Your task to perform on an android device: What's the news about the US stock market? Image 0: 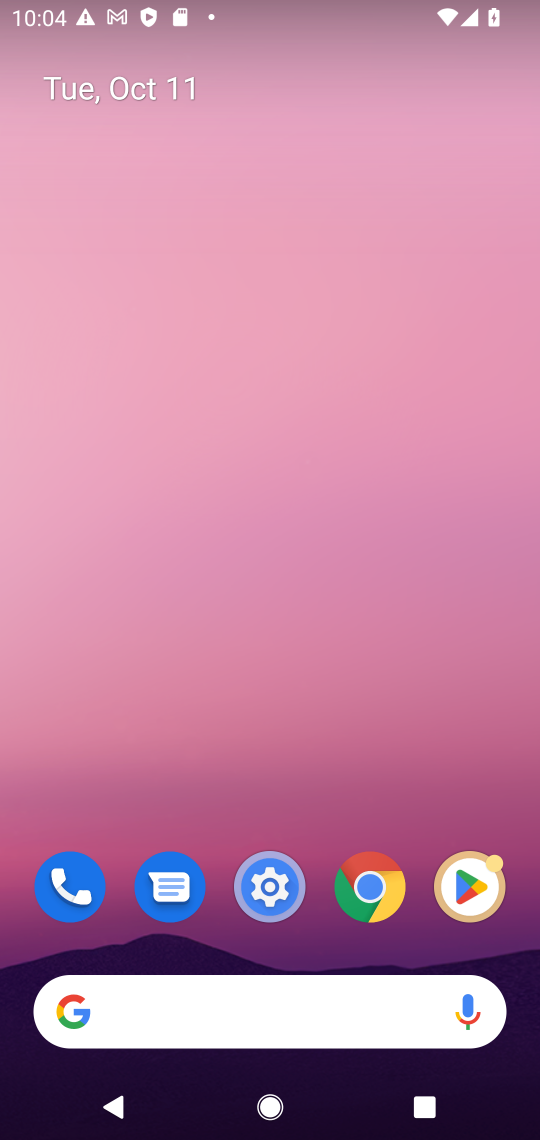
Step 0: press home button
Your task to perform on an android device: What's the news about the US stock market? Image 1: 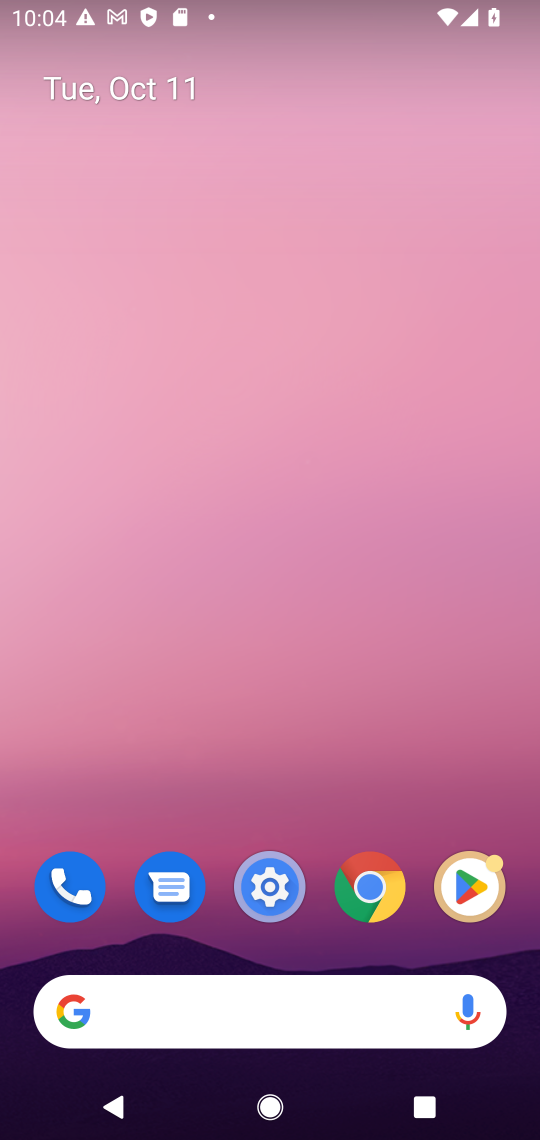
Step 1: click (252, 1016)
Your task to perform on an android device: What's the news about the US stock market? Image 2: 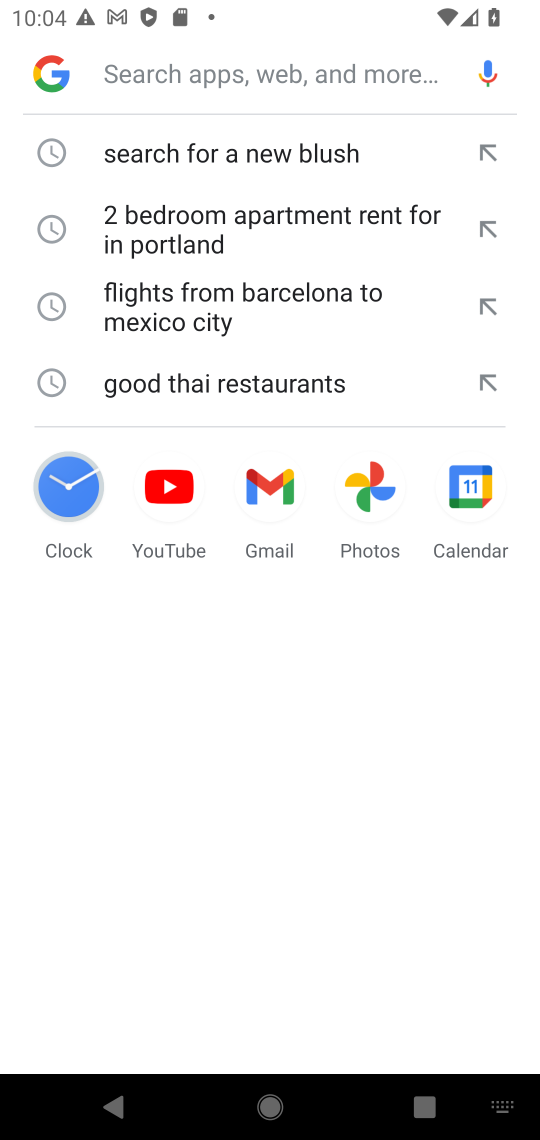
Step 2: type "What's the news about the US stock market"
Your task to perform on an android device: What's the news about the US stock market? Image 3: 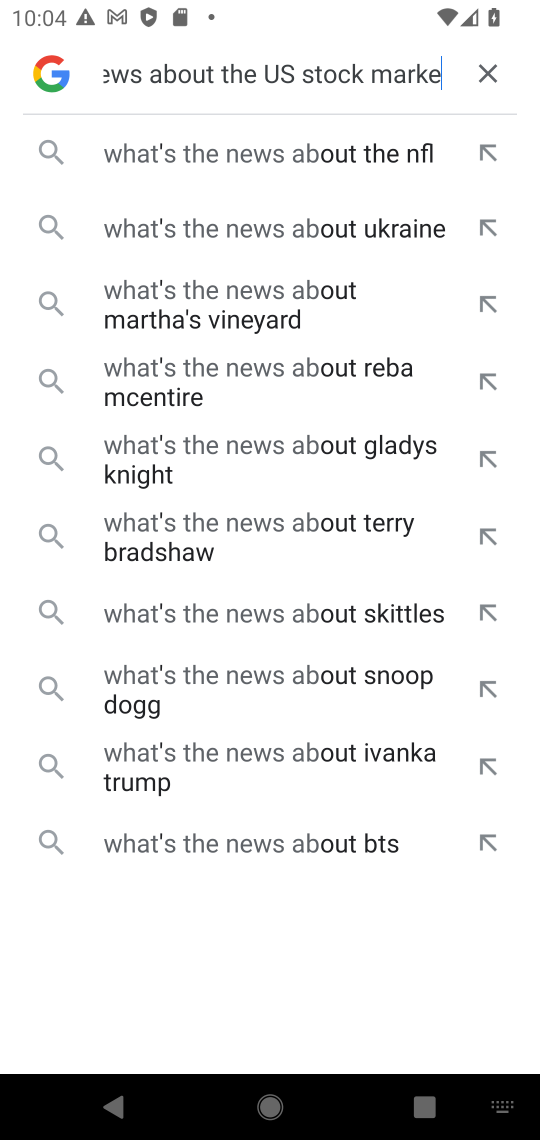
Step 3: press enter
Your task to perform on an android device: What's the news about the US stock market? Image 4: 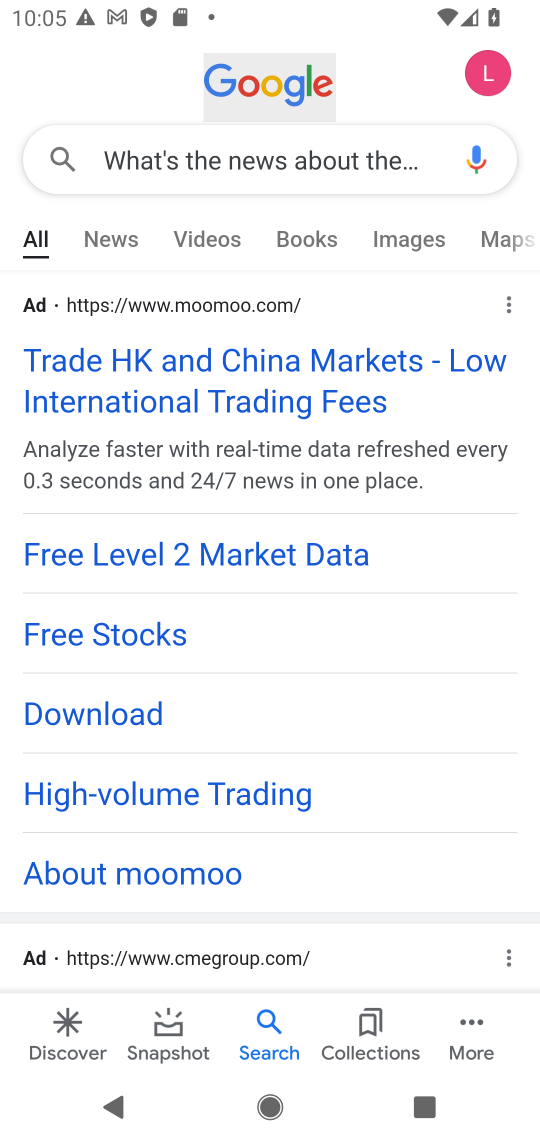
Step 4: drag from (454, 809) to (460, 477)
Your task to perform on an android device: What's the news about the US stock market? Image 5: 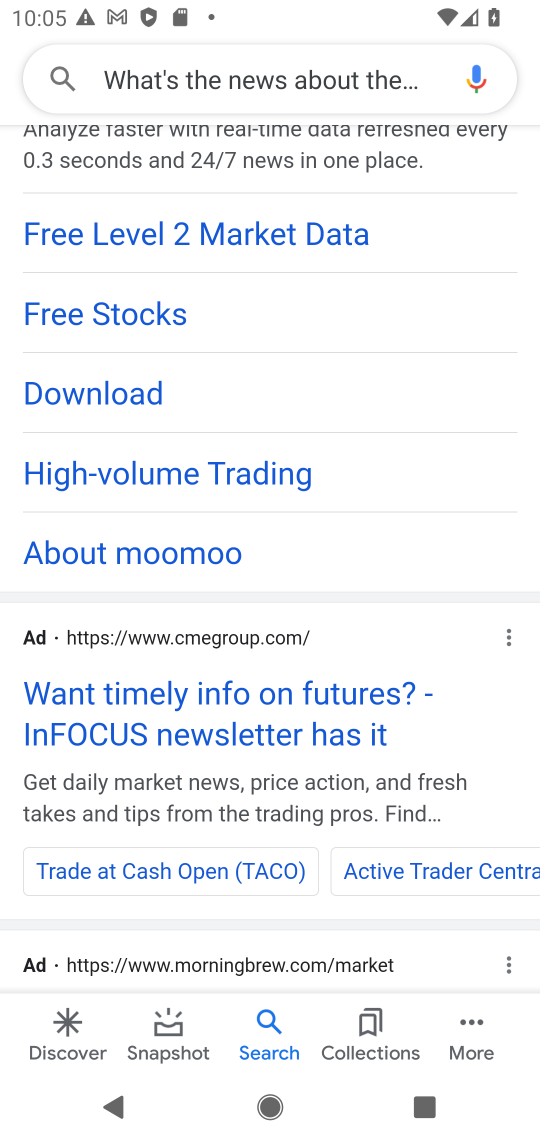
Step 5: drag from (397, 820) to (400, 498)
Your task to perform on an android device: What's the news about the US stock market? Image 6: 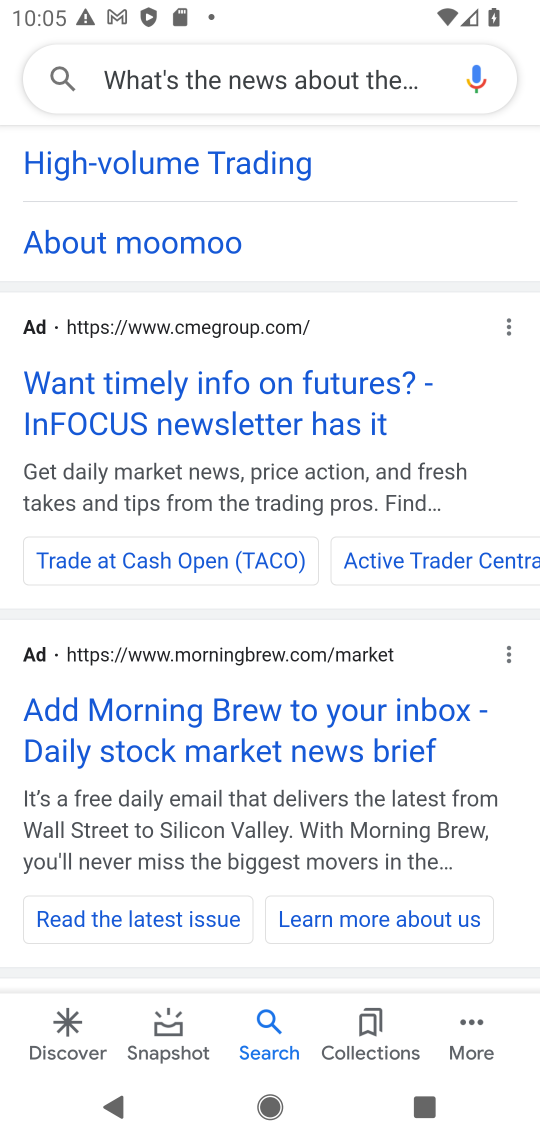
Step 6: drag from (264, 791) to (332, 332)
Your task to perform on an android device: What's the news about the US stock market? Image 7: 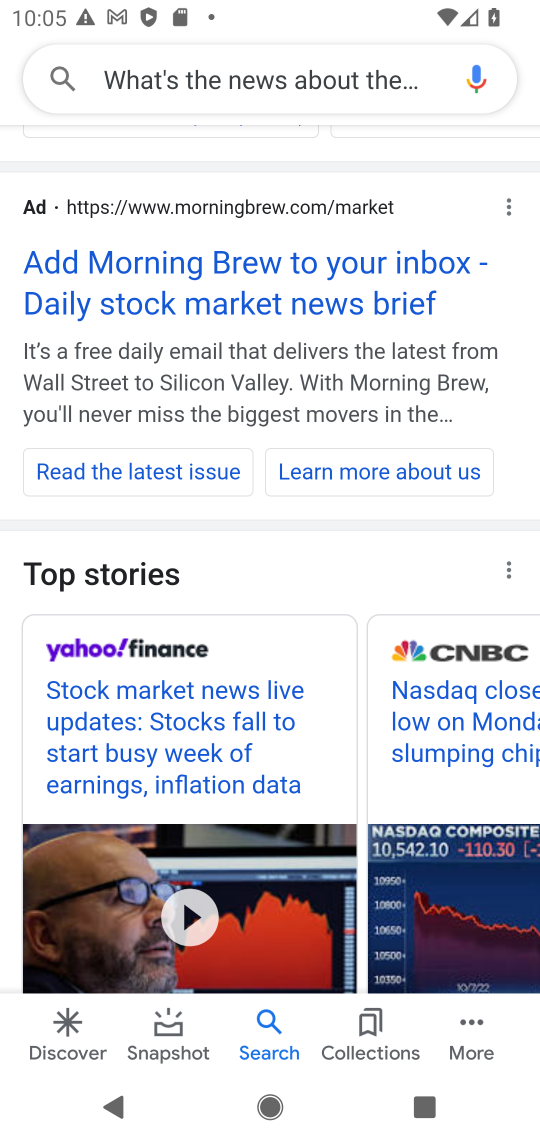
Step 7: drag from (304, 840) to (326, 302)
Your task to perform on an android device: What's the news about the US stock market? Image 8: 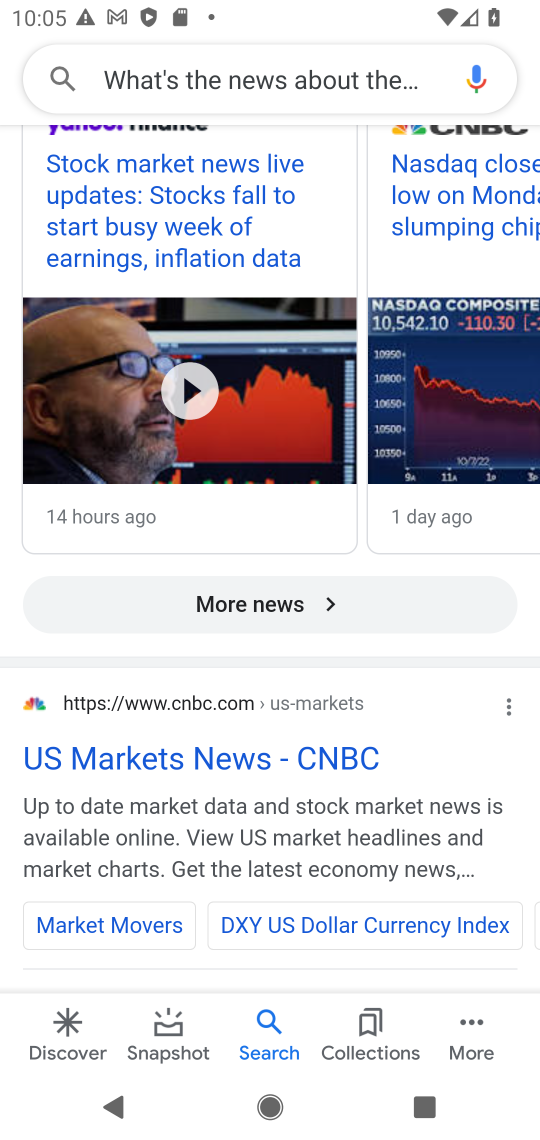
Step 8: click (203, 765)
Your task to perform on an android device: What's the news about the US stock market? Image 9: 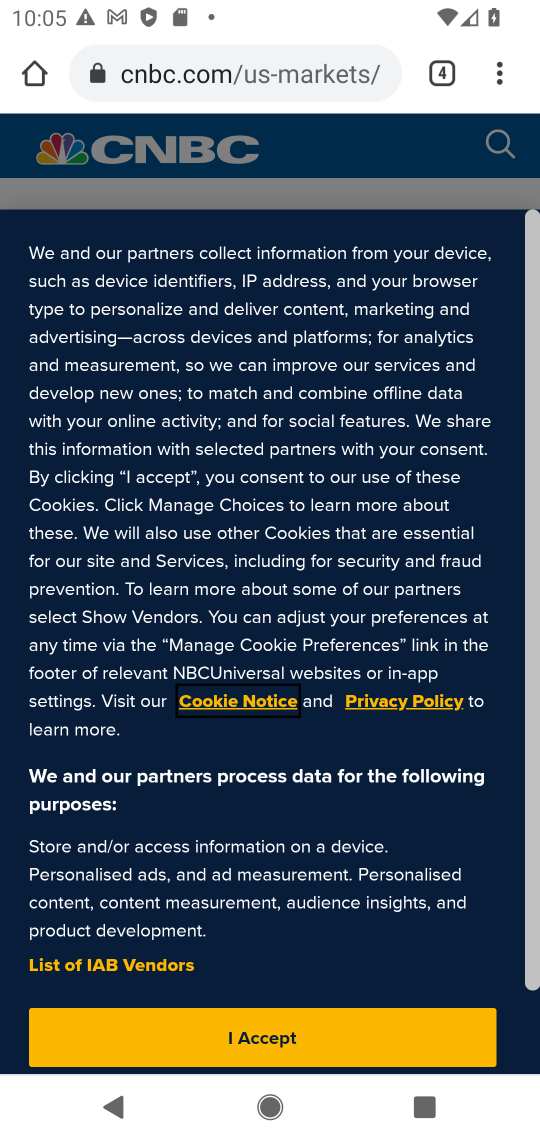
Step 9: click (311, 1045)
Your task to perform on an android device: What's the news about the US stock market? Image 10: 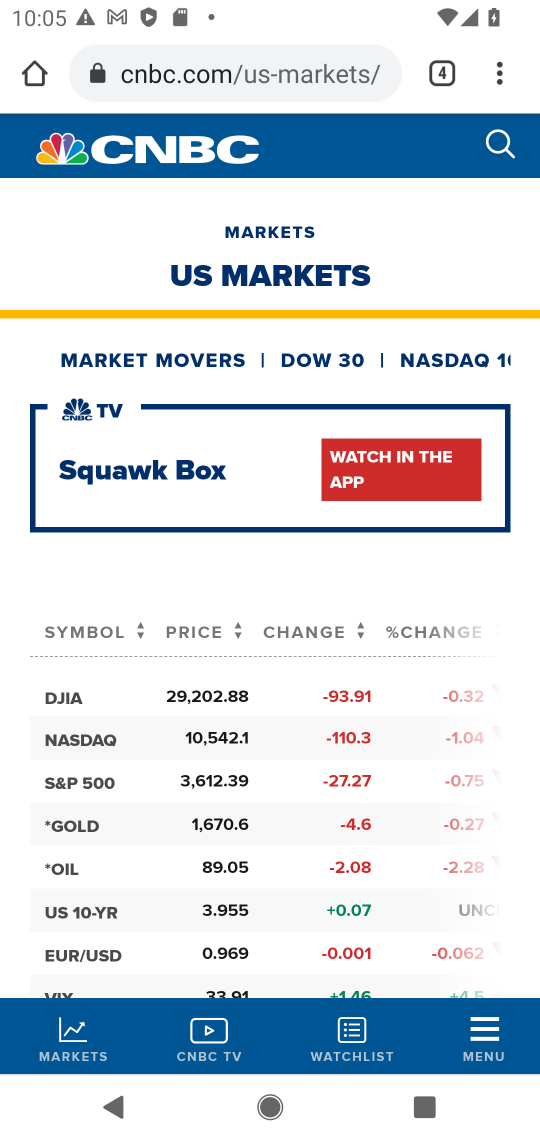
Step 10: task complete